Your task to perform on an android device: toggle sleep mode Image 0: 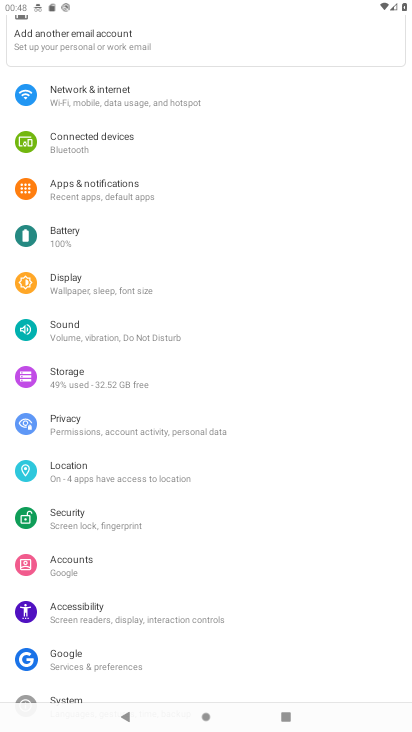
Step 0: drag from (199, 557) to (231, 194)
Your task to perform on an android device: toggle sleep mode Image 1: 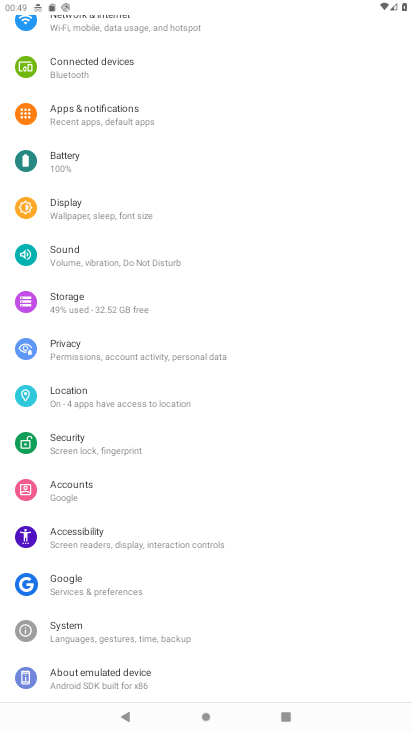
Step 1: task complete